Your task to perform on an android device: When is my next appointment? Image 0: 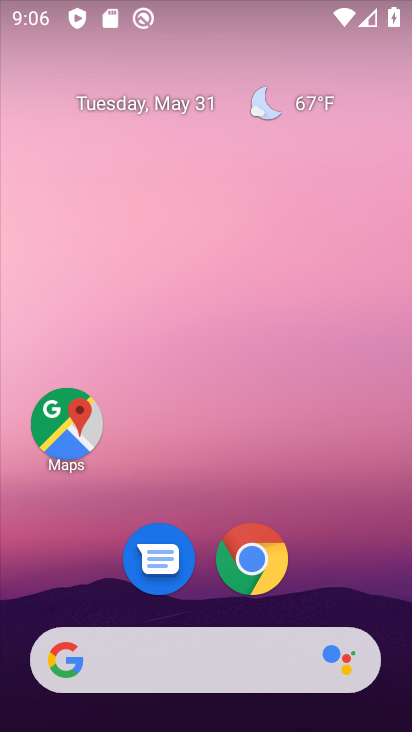
Step 0: drag from (201, 591) to (205, 193)
Your task to perform on an android device: When is my next appointment? Image 1: 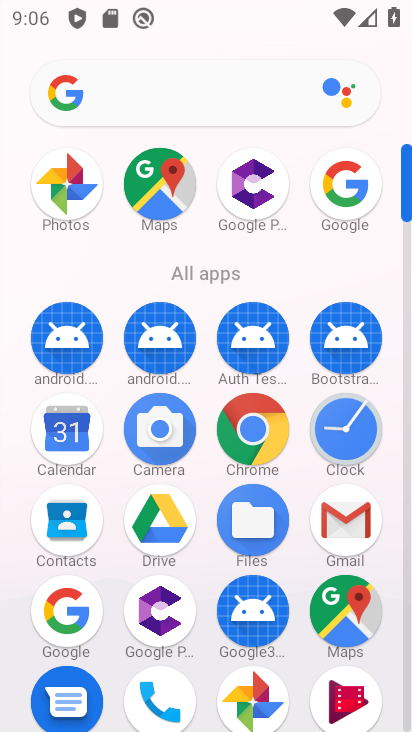
Step 1: drag from (108, 580) to (150, 188)
Your task to perform on an android device: When is my next appointment? Image 2: 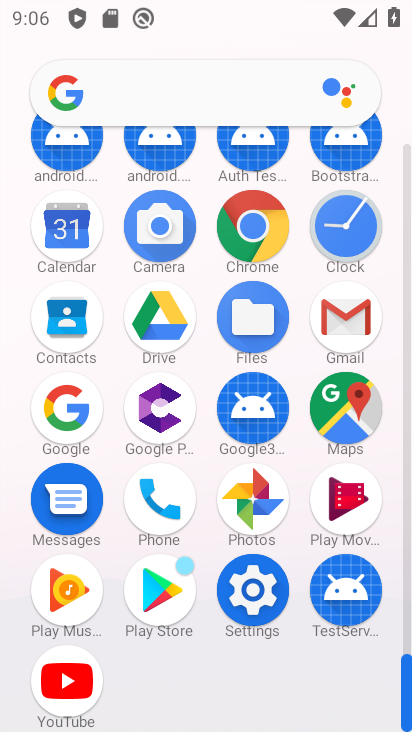
Step 2: drag from (293, 267) to (305, 555)
Your task to perform on an android device: When is my next appointment? Image 3: 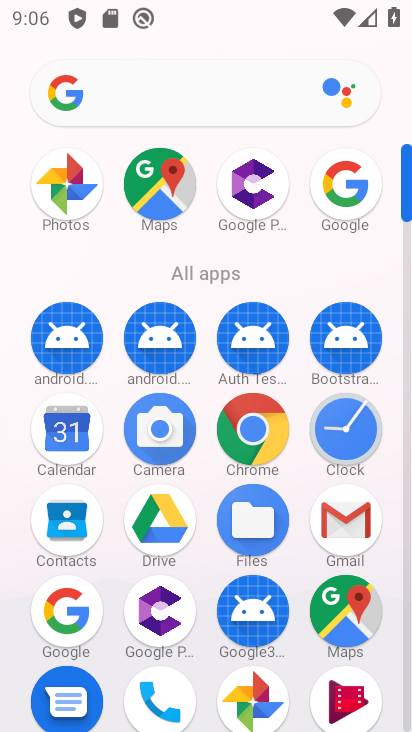
Step 3: click (72, 433)
Your task to perform on an android device: When is my next appointment? Image 4: 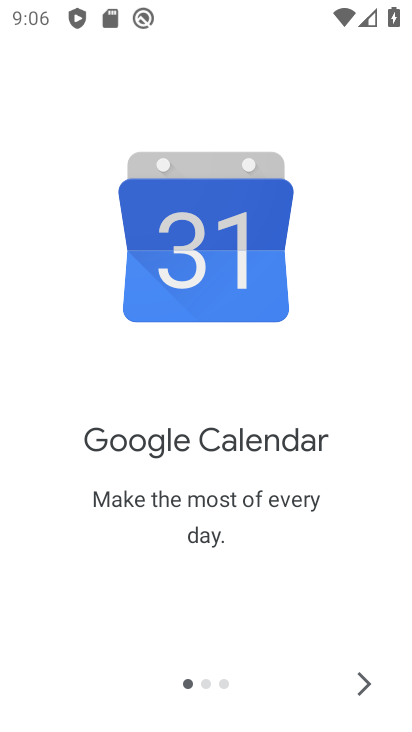
Step 4: click (373, 682)
Your task to perform on an android device: When is my next appointment? Image 5: 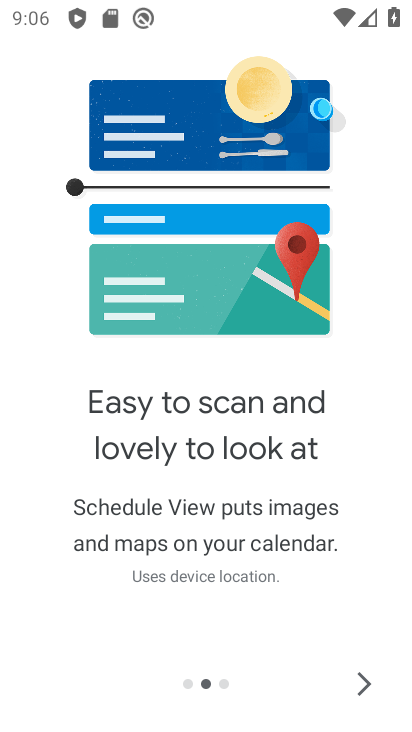
Step 5: click (373, 682)
Your task to perform on an android device: When is my next appointment? Image 6: 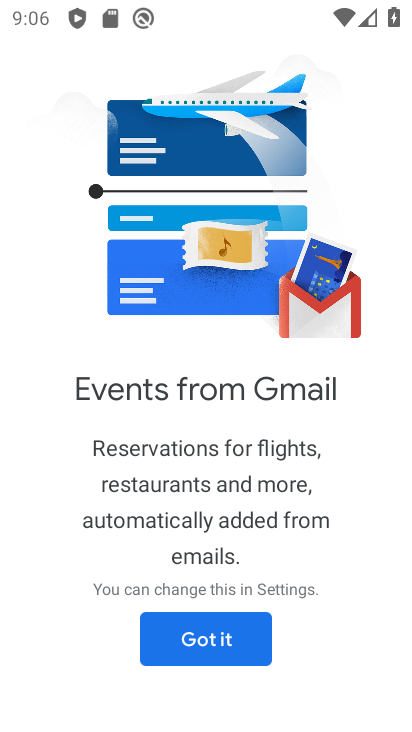
Step 6: click (228, 641)
Your task to perform on an android device: When is my next appointment? Image 7: 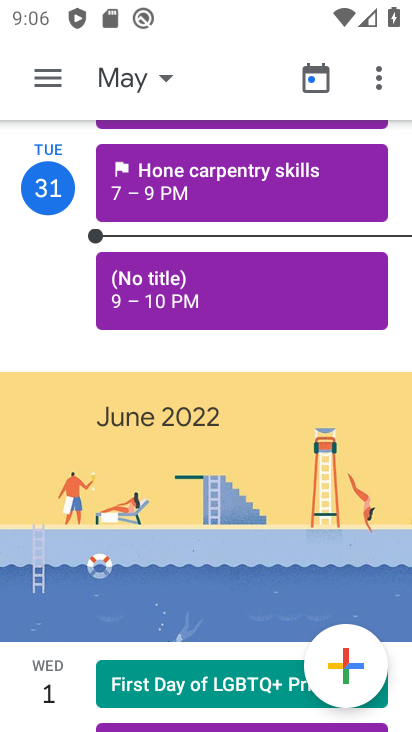
Step 7: click (166, 77)
Your task to perform on an android device: When is my next appointment? Image 8: 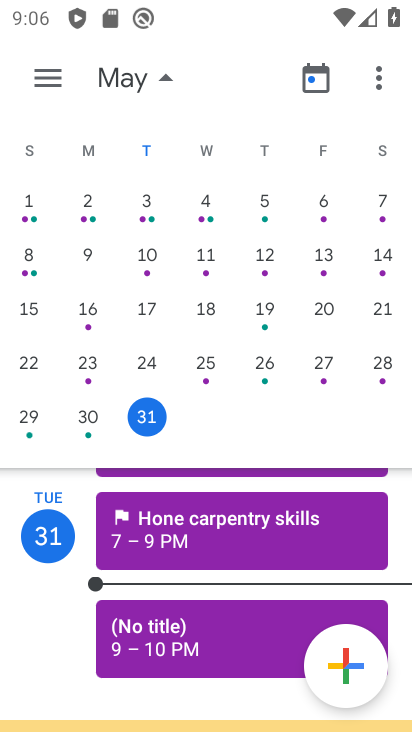
Step 8: drag from (345, 419) to (2, 356)
Your task to perform on an android device: When is my next appointment? Image 9: 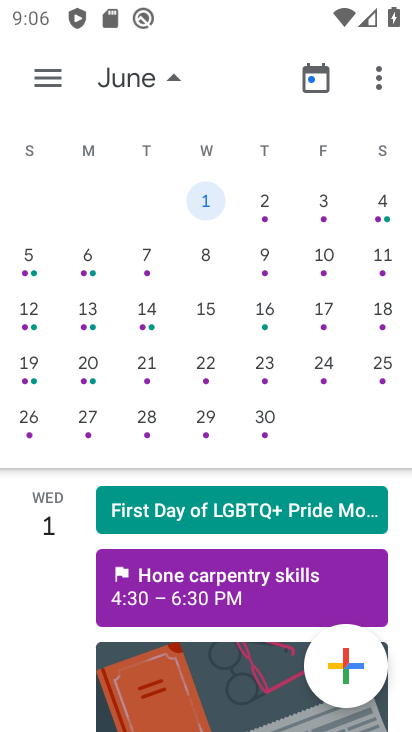
Step 9: click (210, 201)
Your task to perform on an android device: When is my next appointment? Image 10: 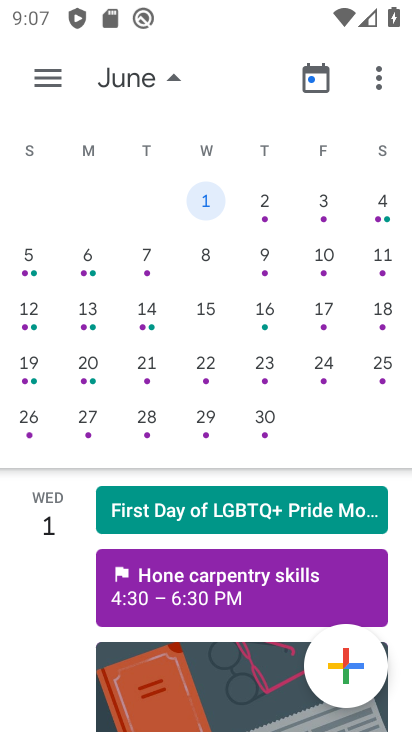
Step 10: task complete